Your task to perform on an android device: Open display settings Image 0: 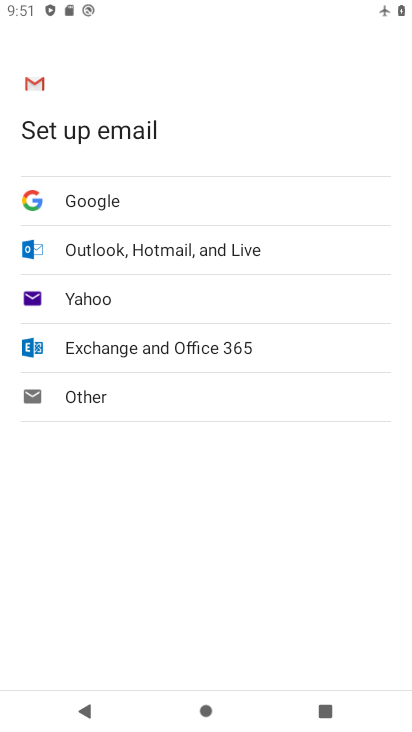
Step 0: press home button
Your task to perform on an android device: Open display settings Image 1: 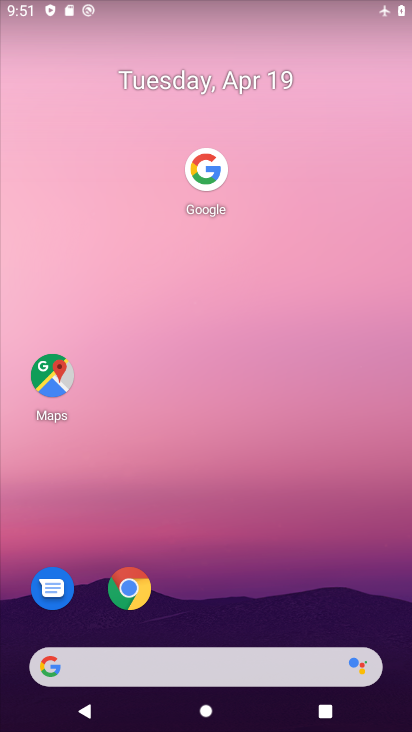
Step 1: drag from (257, 608) to (261, 1)
Your task to perform on an android device: Open display settings Image 2: 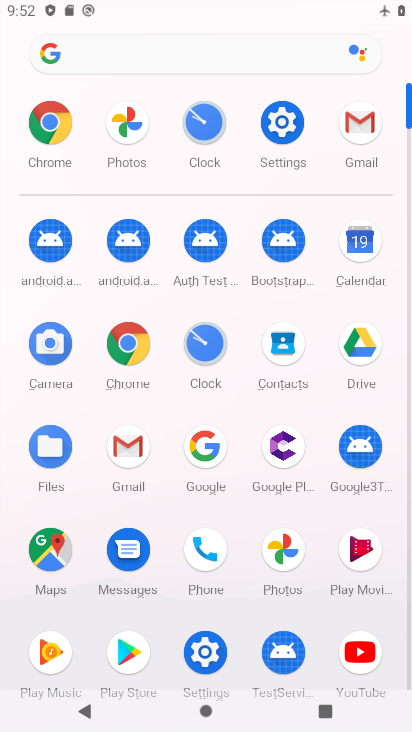
Step 2: click (280, 129)
Your task to perform on an android device: Open display settings Image 3: 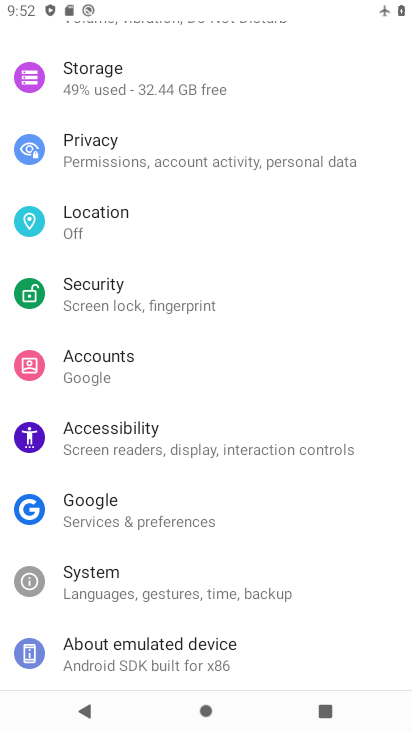
Step 3: drag from (268, 297) to (280, 731)
Your task to perform on an android device: Open display settings Image 4: 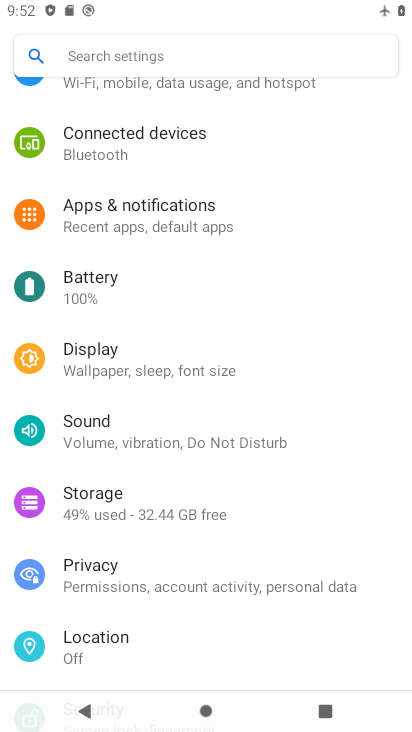
Step 4: drag from (265, 235) to (269, 419)
Your task to perform on an android device: Open display settings Image 5: 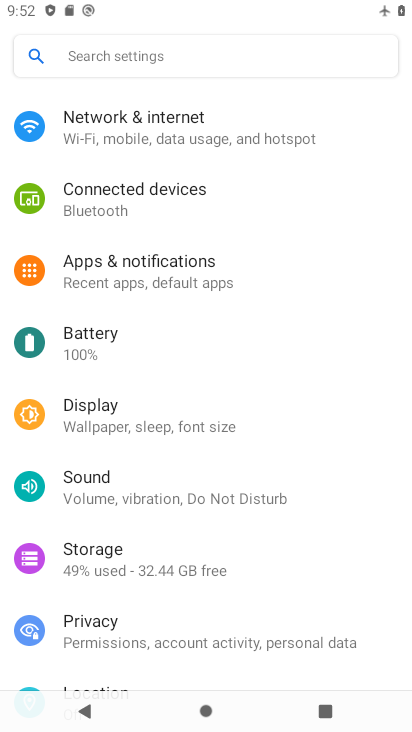
Step 5: click (80, 408)
Your task to perform on an android device: Open display settings Image 6: 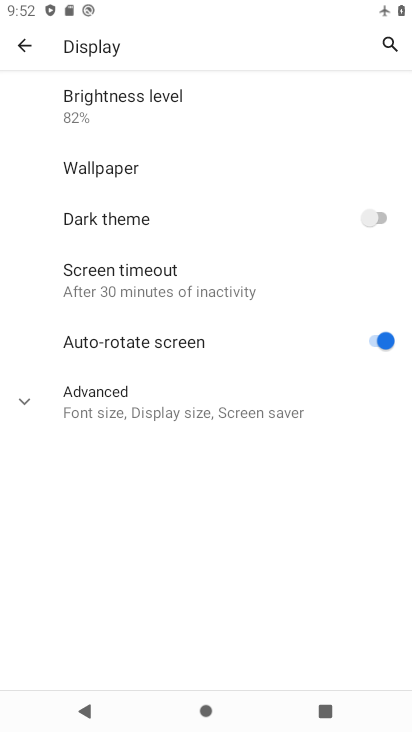
Step 6: task complete